Your task to perform on an android device: Open Chrome and go to settings Image 0: 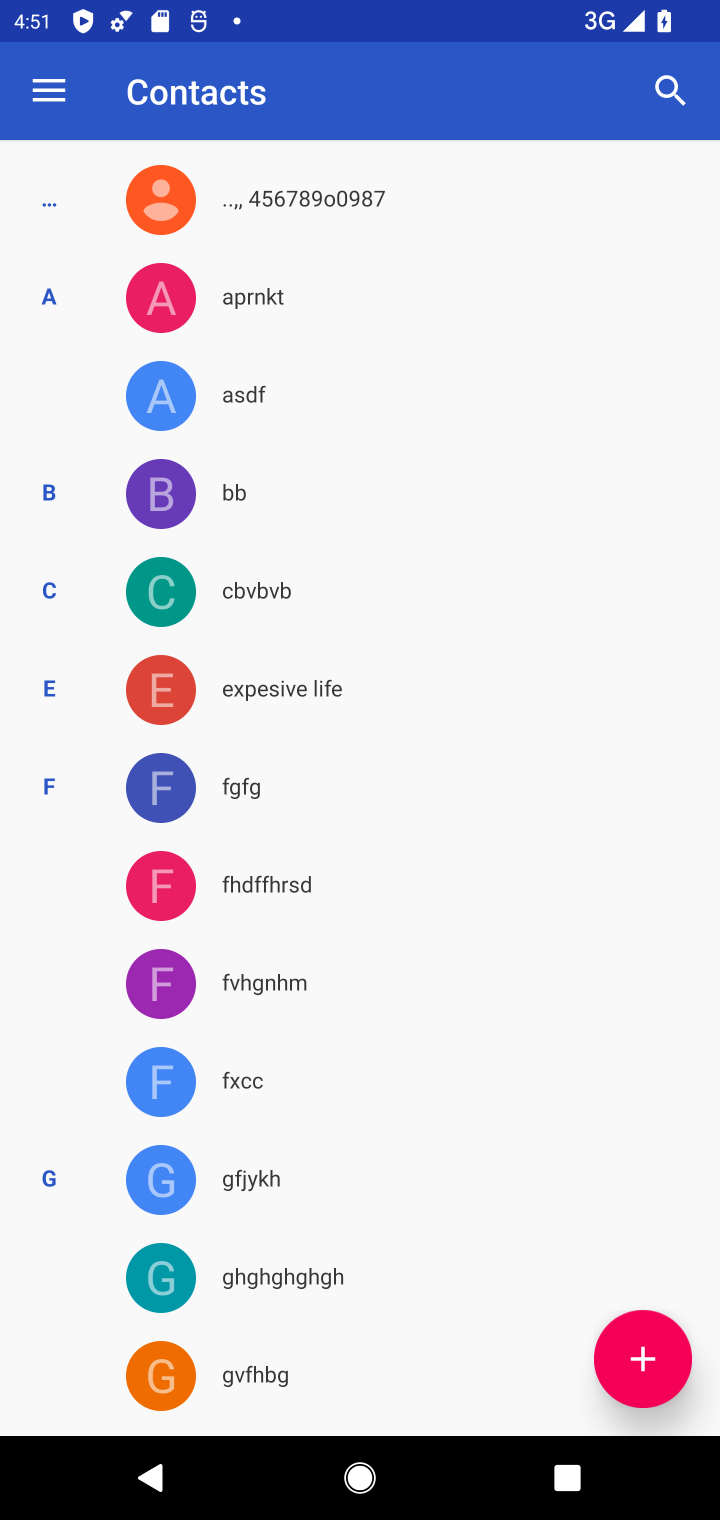
Step 0: press home button
Your task to perform on an android device: Open Chrome and go to settings Image 1: 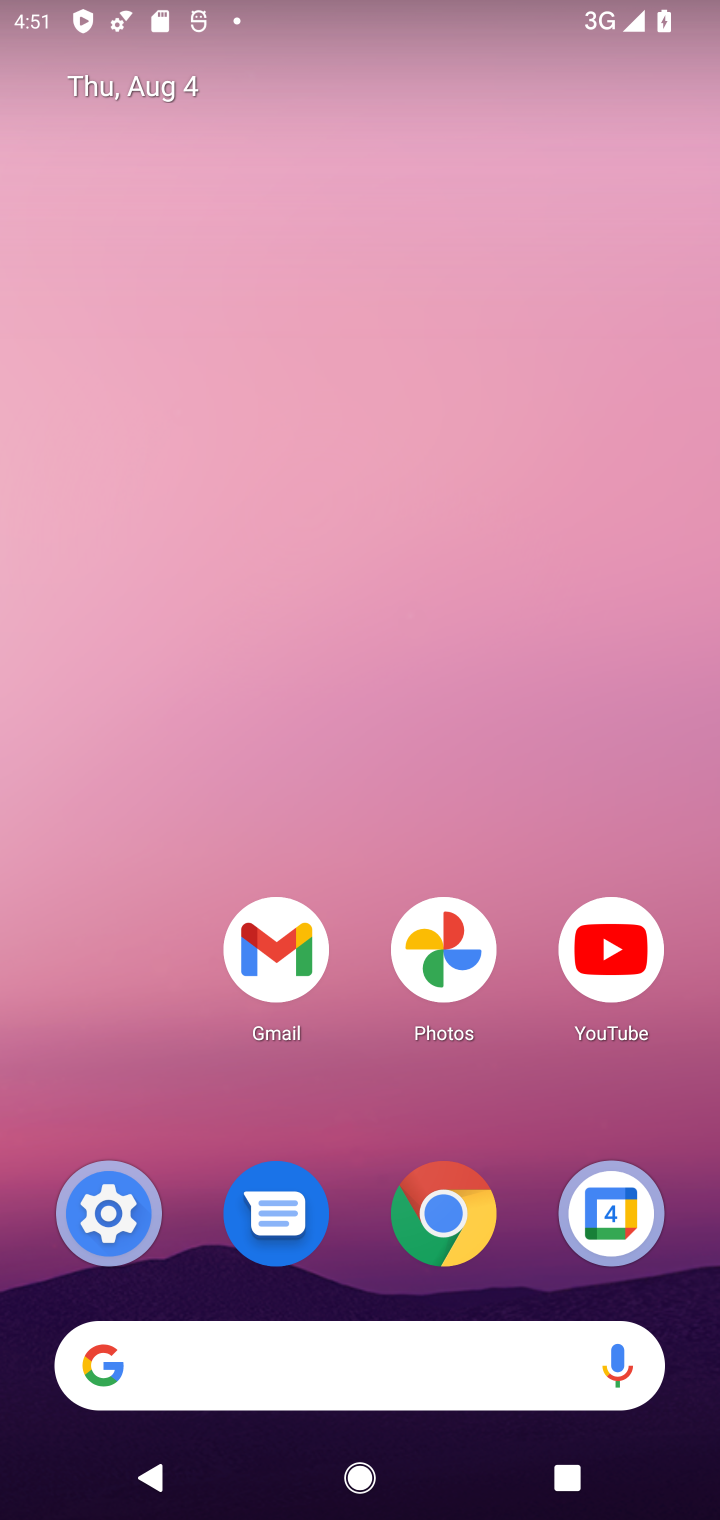
Step 1: drag from (165, 1014) to (112, 203)
Your task to perform on an android device: Open Chrome and go to settings Image 2: 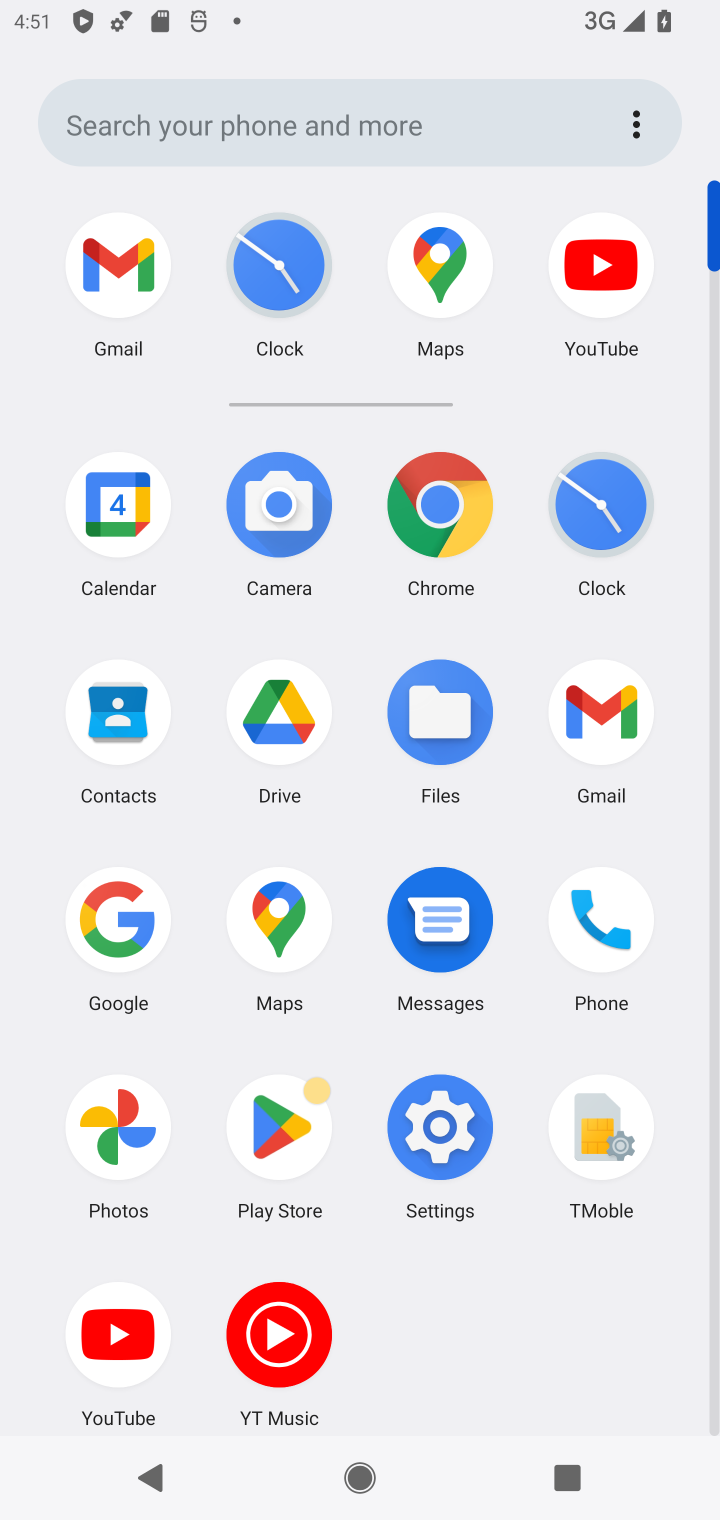
Step 2: click (428, 504)
Your task to perform on an android device: Open Chrome and go to settings Image 3: 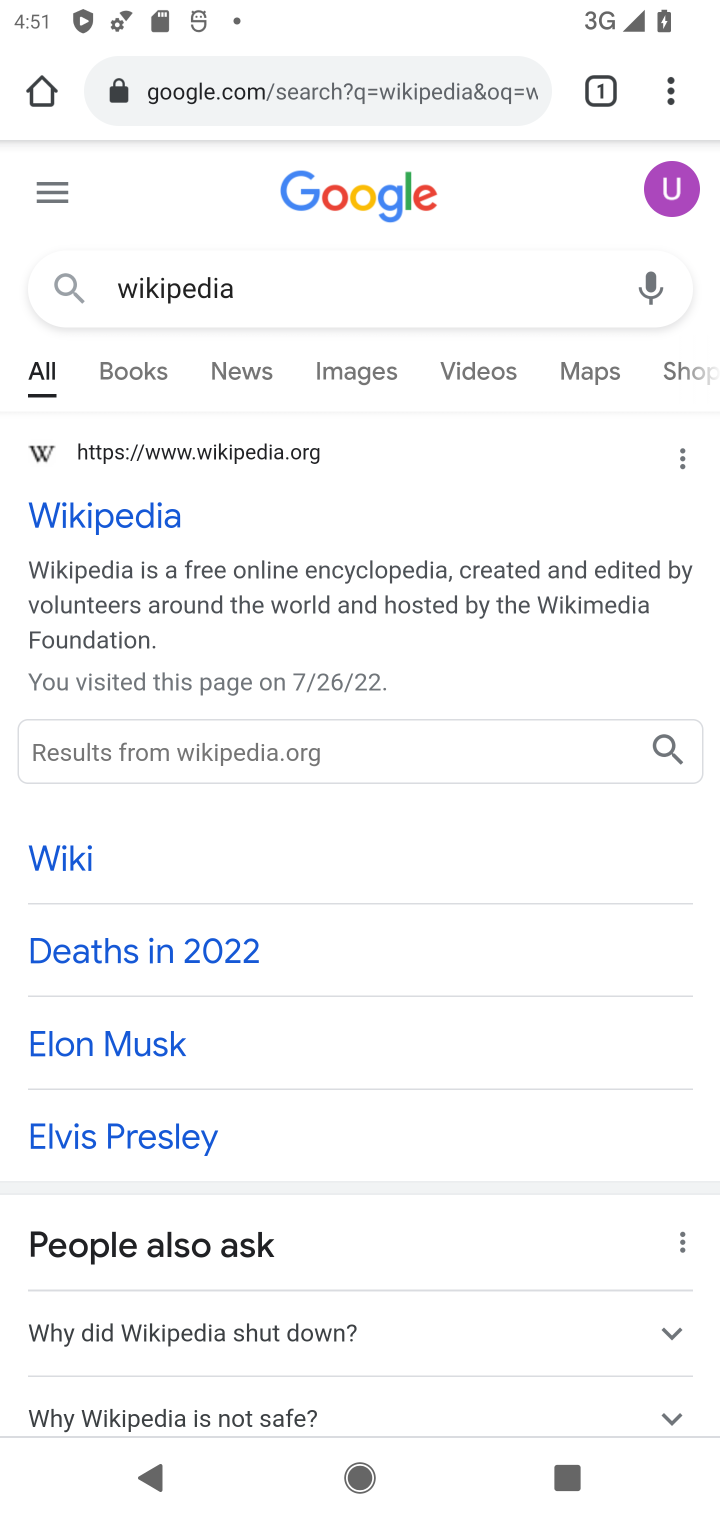
Step 3: click (669, 94)
Your task to perform on an android device: Open Chrome and go to settings Image 4: 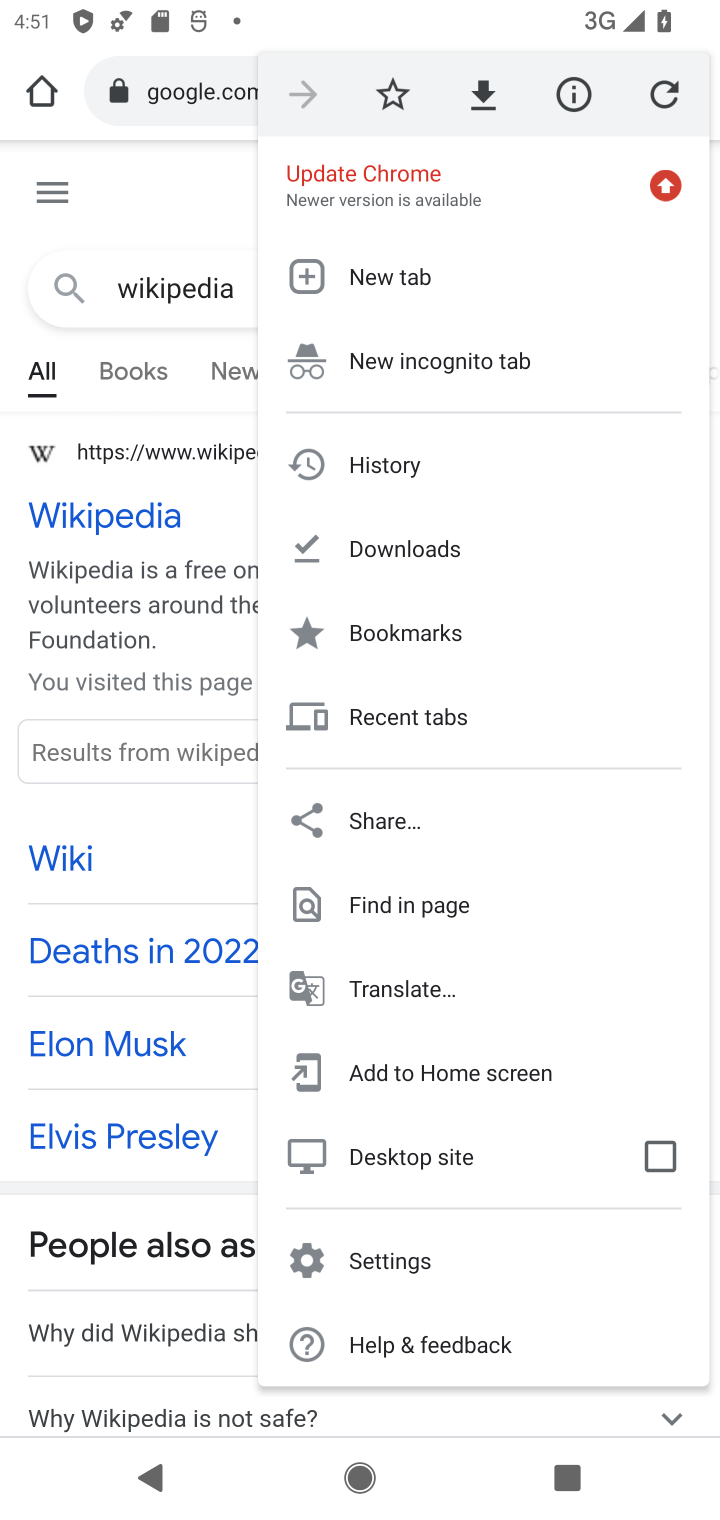
Step 4: drag from (580, 979) to (588, 670)
Your task to perform on an android device: Open Chrome and go to settings Image 5: 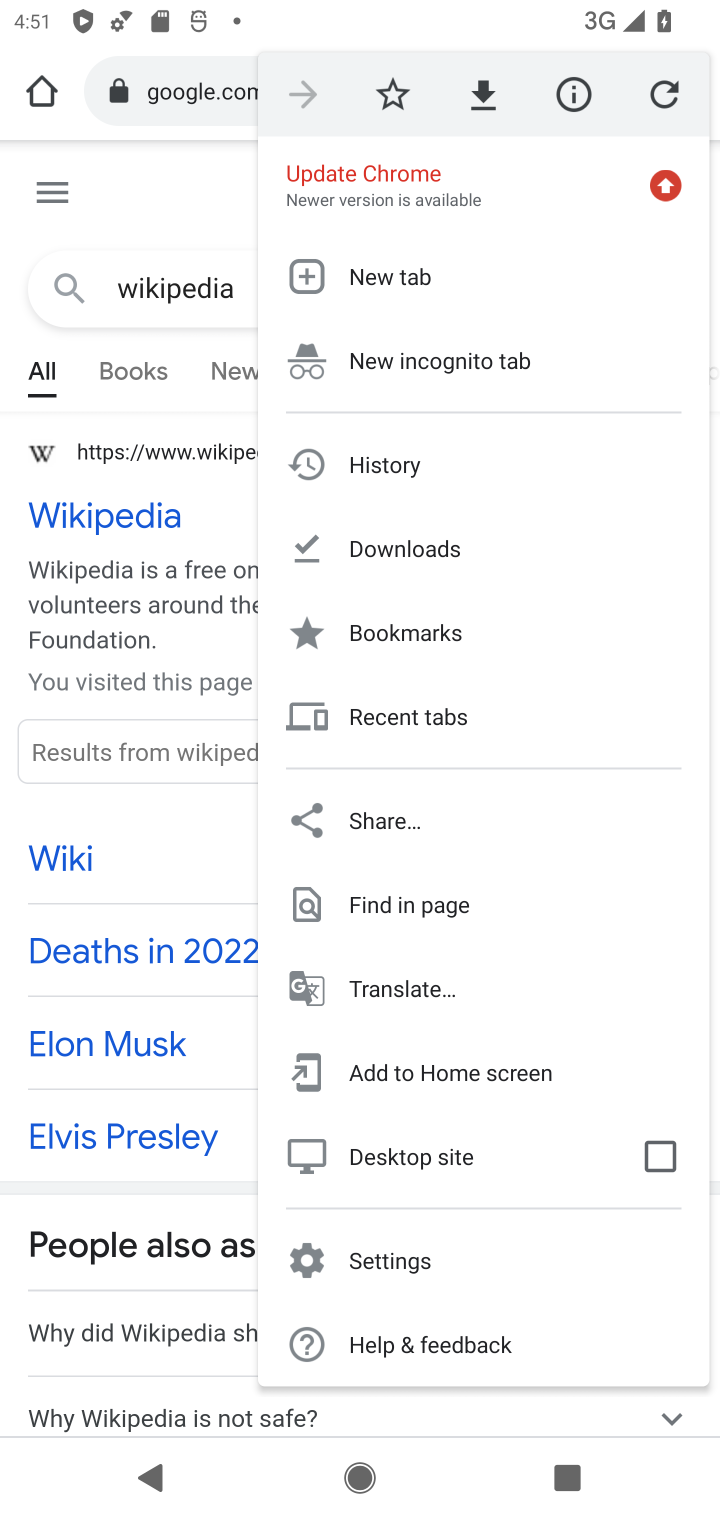
Step 5: click (422, 1258)
Your task to perform on an android device: Open Chrome and go to settings Image 6: 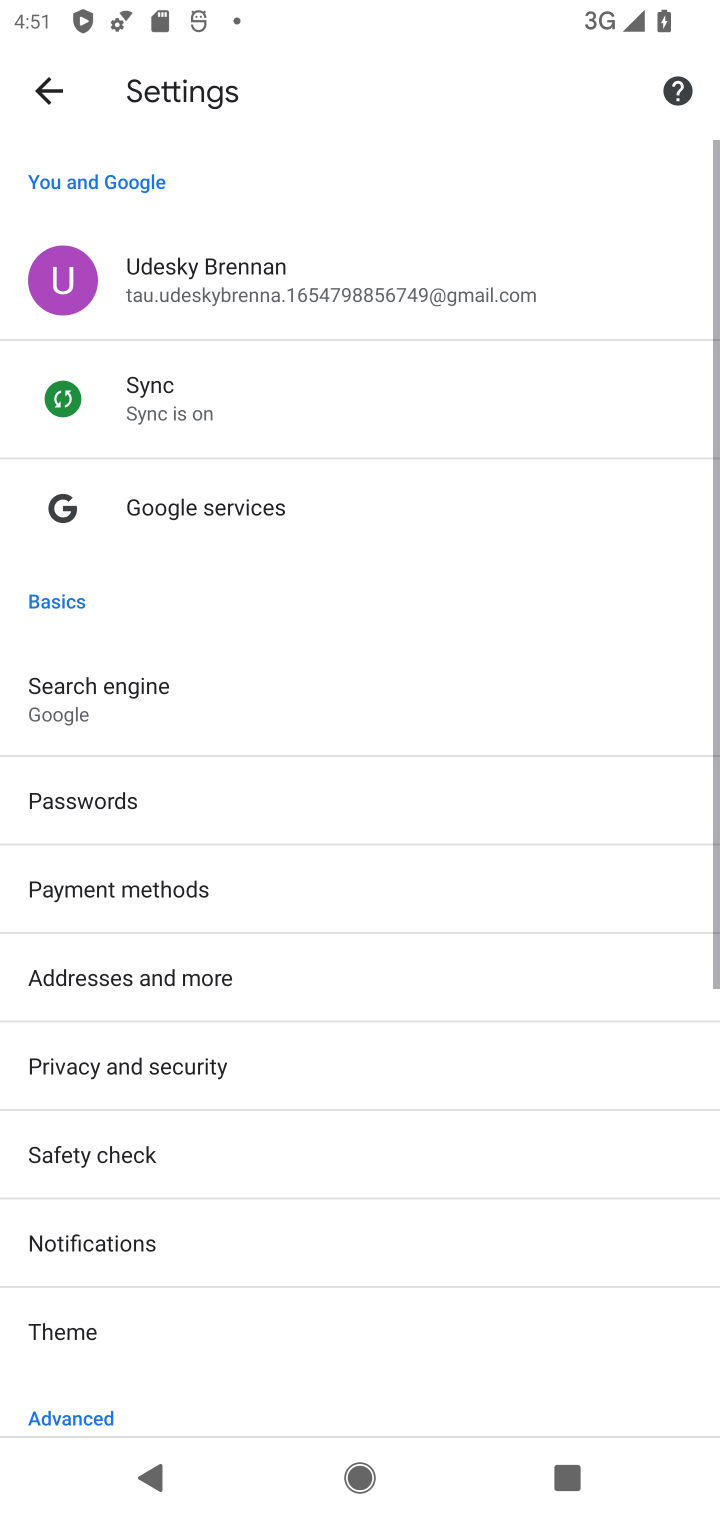
Step 6: task complete